Your task to perform on an android device: change the clock display to digital Image 0: 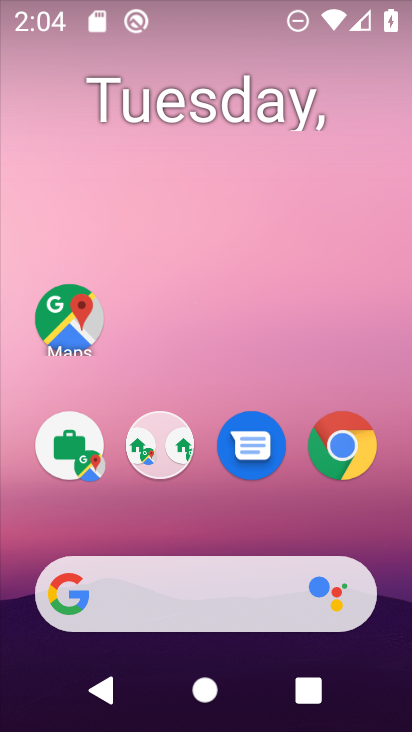
Step 0: drag from (297, 525) to (337, 141)
Your task to perform on an android device: change the clock display to digital Image 1: 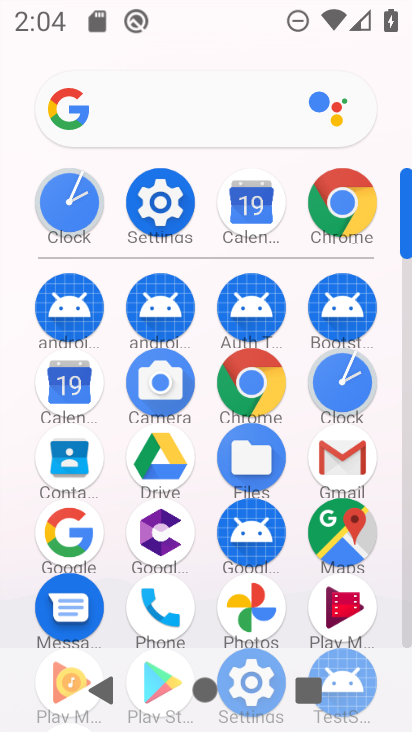
Step 1: click (342, 373)
Your task to perform on an android device: change the clock display to digital Image 2: 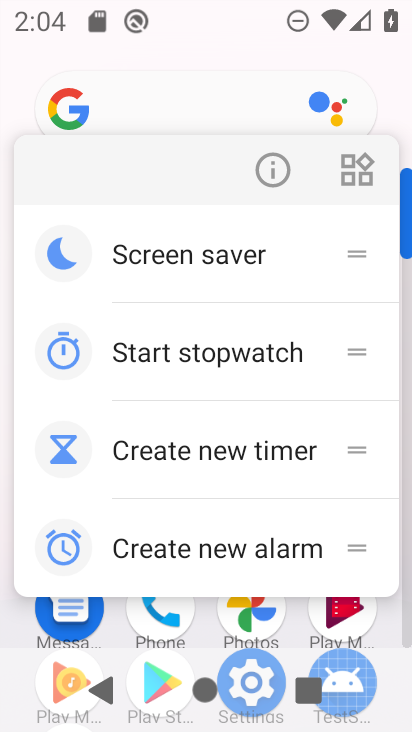
Step 2: press back button
Your task to perform on an android device: change the clock display to digital Image 3: 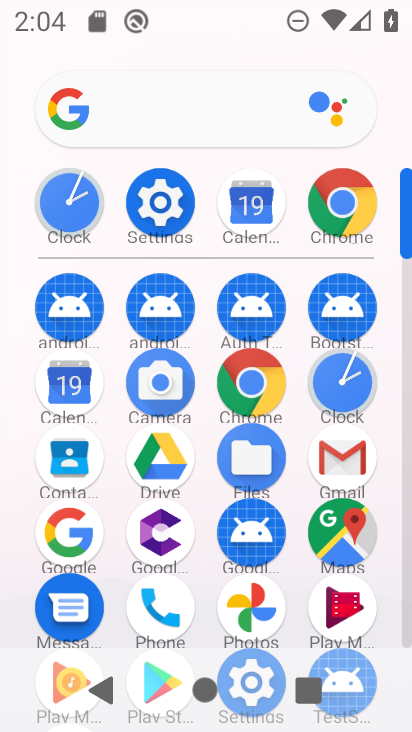
Step 3: click (346, 403)
Your task to perform on an android device: change the clock display to digital Image 4: 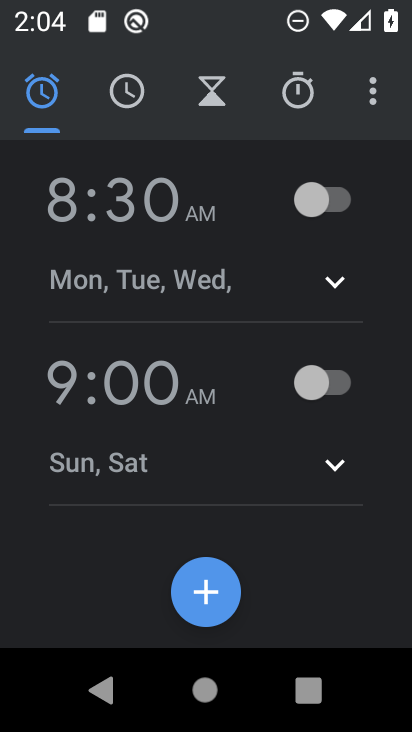
Step 4: click (375, 113)
Your task to perform on an android device: change the clock display to digital Image 5: 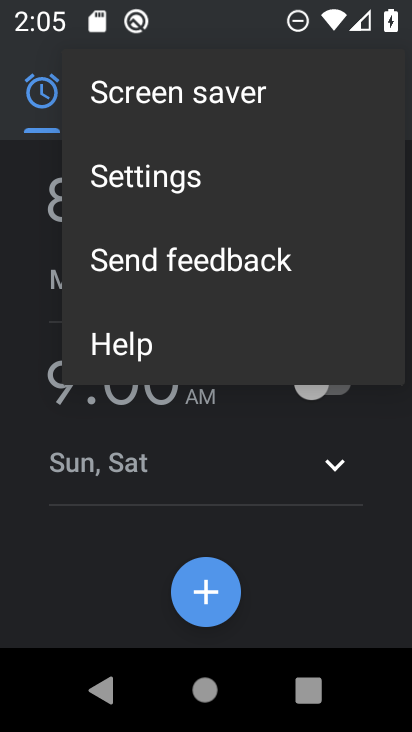
Step 5: click (206, 195)
Your task to perform on an android device: change the clock display to digital Image 6: 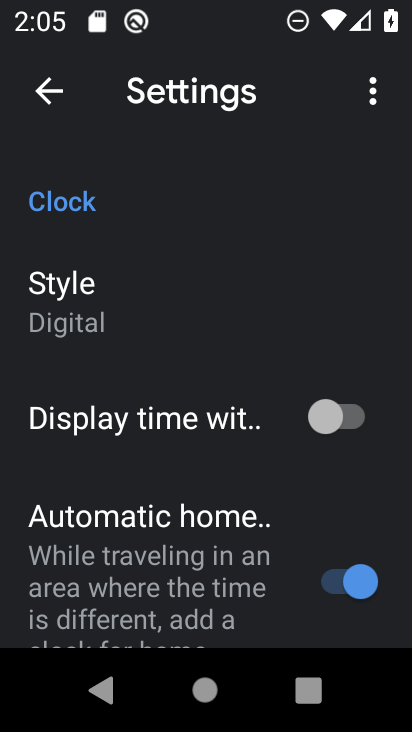
Step 6: task complete